Your task to perform on an android device: Turn off the flashlight Image 0: 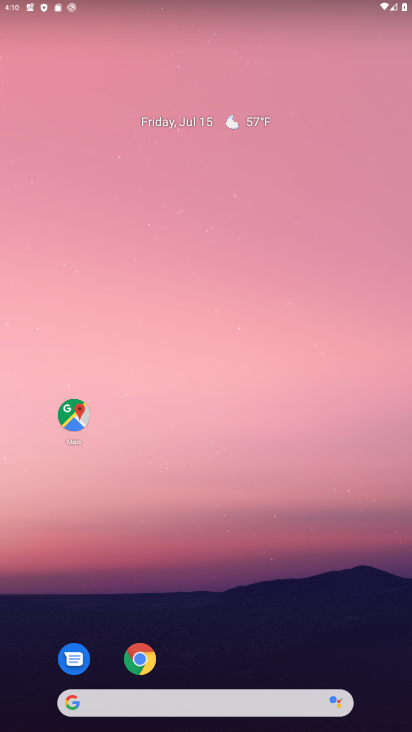
Step 0: drag from (262, 5) to (278, 546)
Your task to perform on an android device: Turn off the flashlight Image 1: 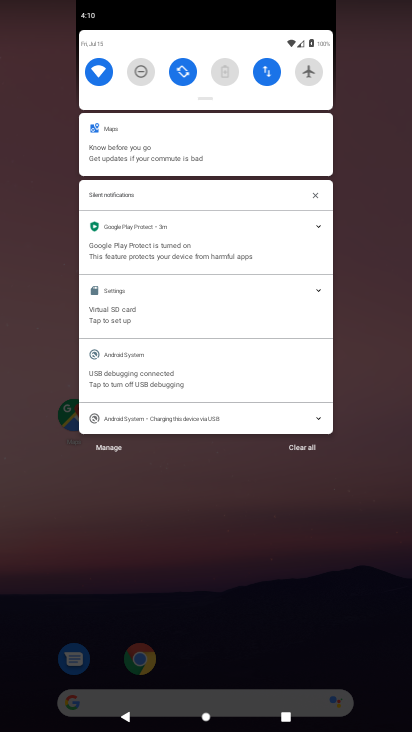
Step 1: drag from (201, 84) to (193, 476)
Your task to perform on an android device: Turn off the flashlight Image 2: 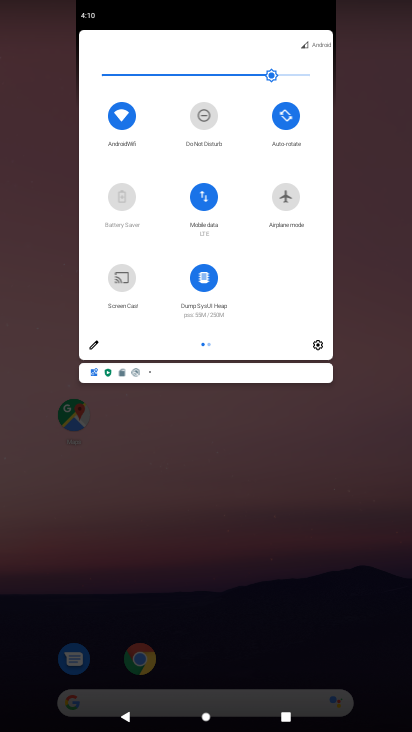
Step 2: click (87, 349)
Your task to perform on an android device: Turn off the flashlight Image 3: 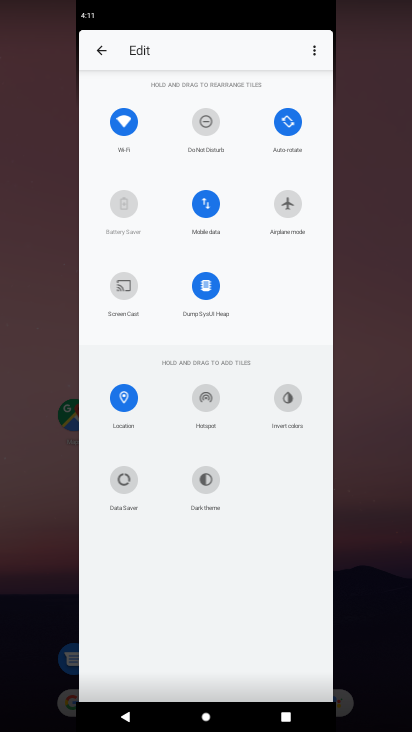
Step 3: task complete